Your task to perform on an android device: Open Yahoo.com Image 0: 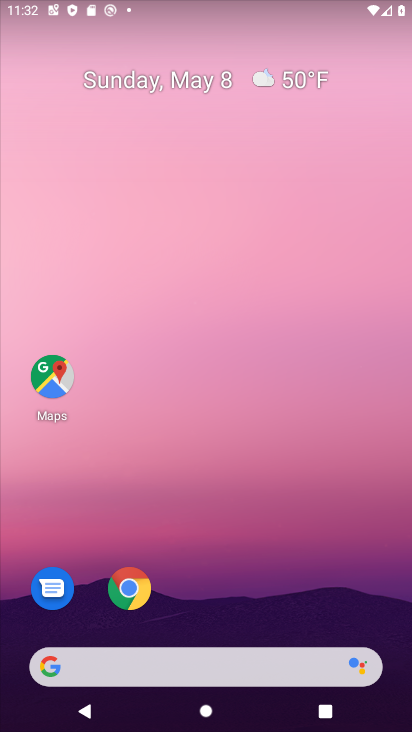
Step 0: click (125, 572)
Your task to perform on an android device: Open Yahoo.com Image 1: 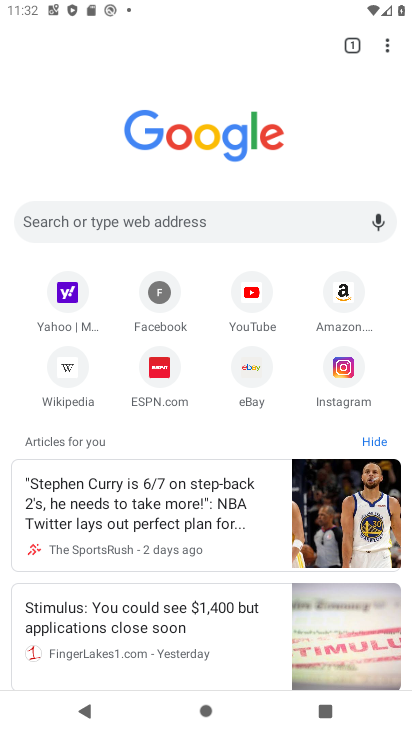
Step 1: click (82, 308)
Your task to perform on an android device: Open Yahoo.com Image 2: 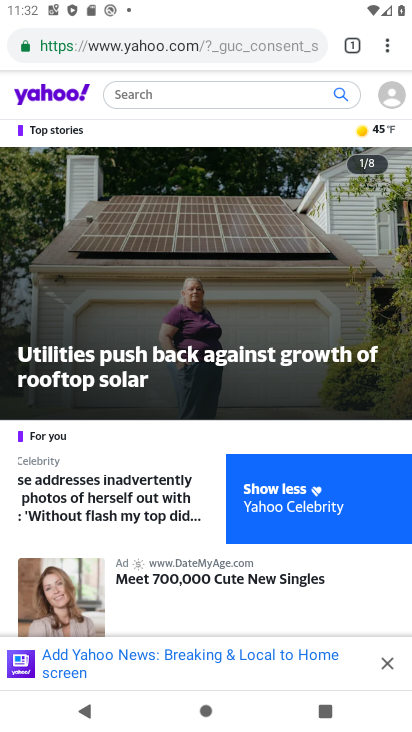
Step 2: task complete